Your task to perform on an android device: open sync settings in chrome Image 0: 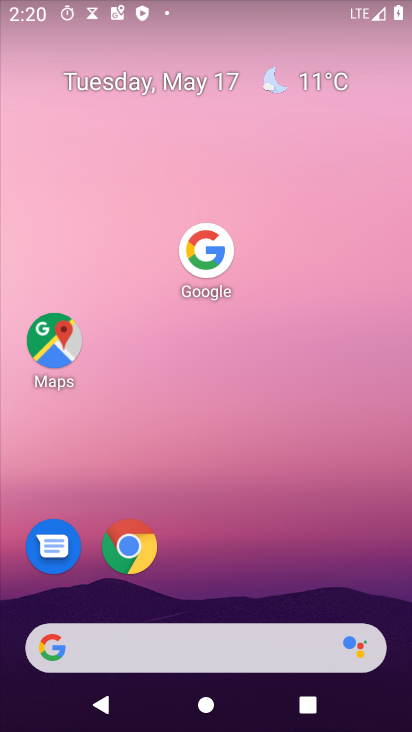
Step 0: click (143, 551)
Your task to perform on an android device: open sync settings in chrome Image 1: 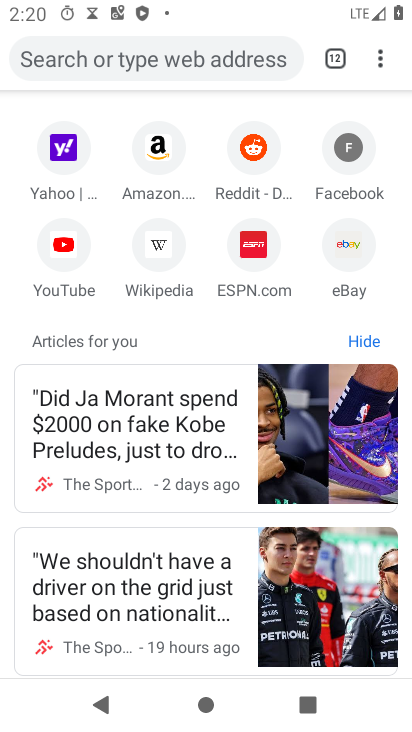
Step 1: drag from (381, 72) to (218, 492)
Your task to perform on an android device: open sync settings in chrome Image 2: 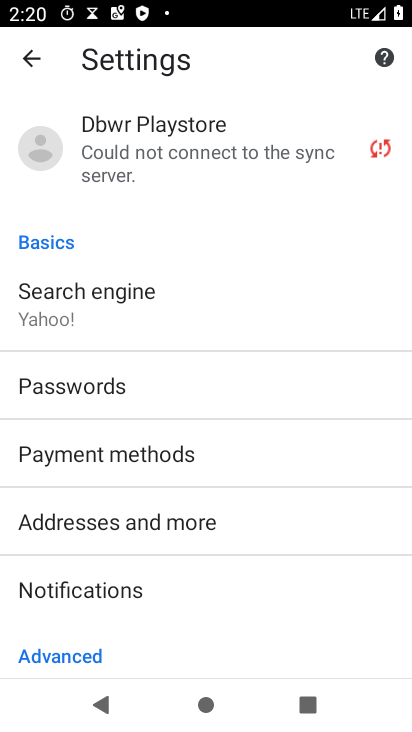
Step 2: click (180, 602)
Your task to perform on an android device: open sync settings in chrome Image 3: 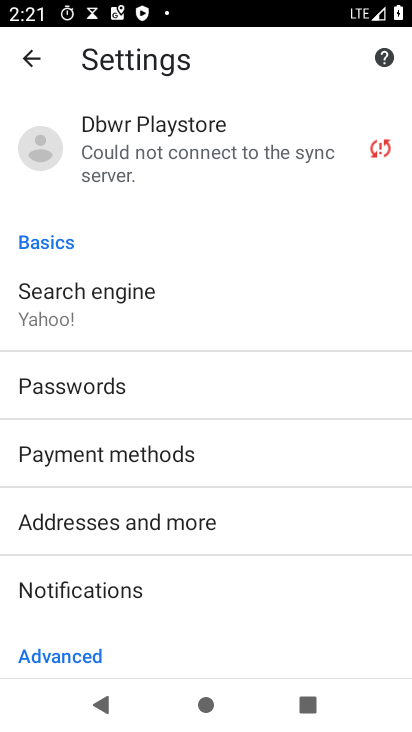
Step 3: click (166, 153)
Your task to perform on an android device: open sync settings in chrome Image 4: 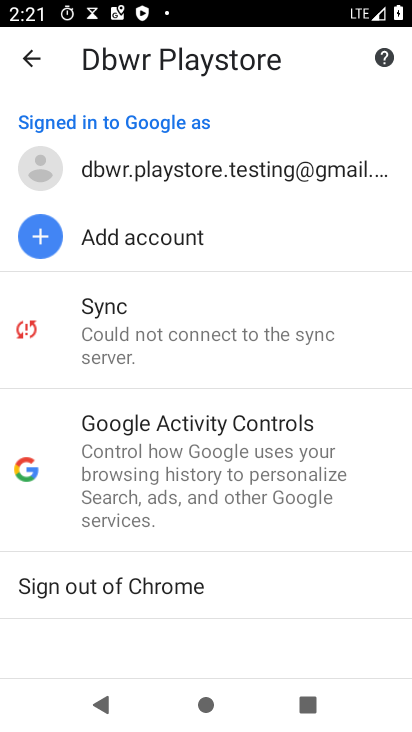
Step 4: click (153, 338)
Your task to perform on an android device: open sync settings in chrome Image 5: 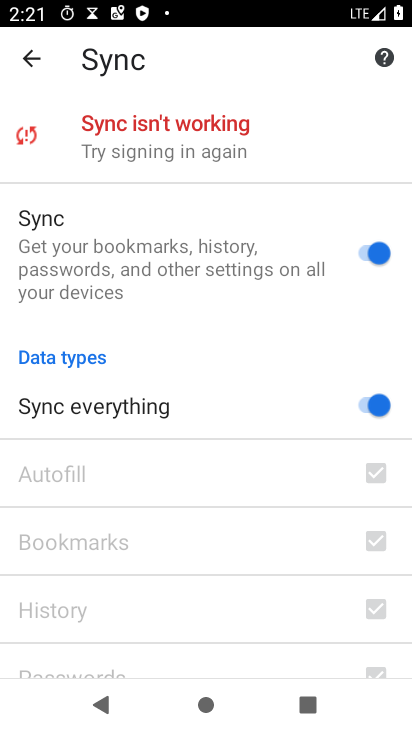
Step 5: task complete